Your task to perform on an android device: Open Google Chrome and open the bookmarks view Image 0: 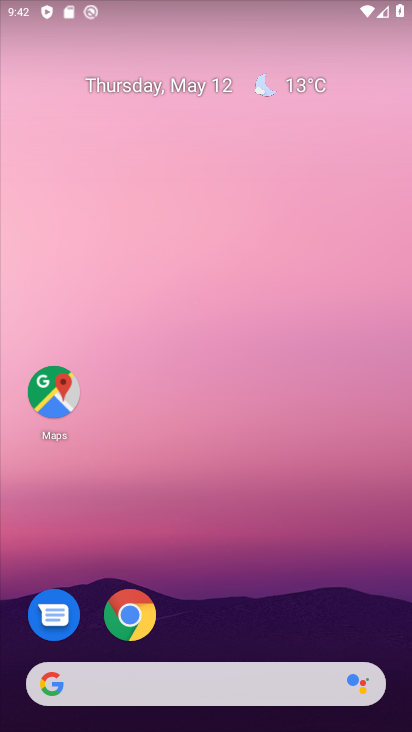
Step 0: drag from (246, 609) to (291, 131)
Your task to perform on an android device: Open Google Chrome and open the bookmarks view Image 1: 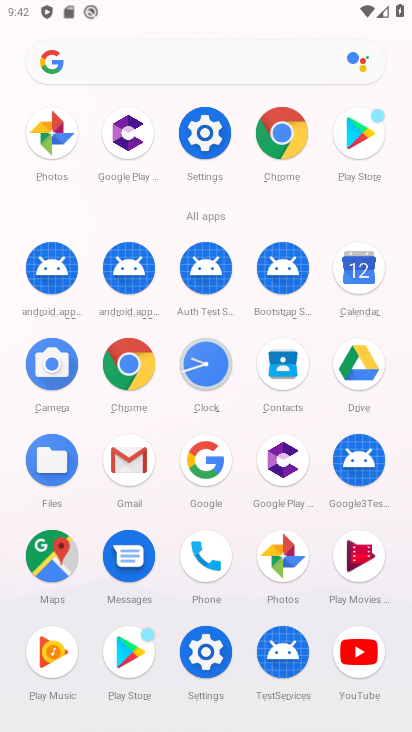
Step 1: click (291, 131)
Your task to perform on an android device: Open Google Chrome and open the bookmarks view Image 2: 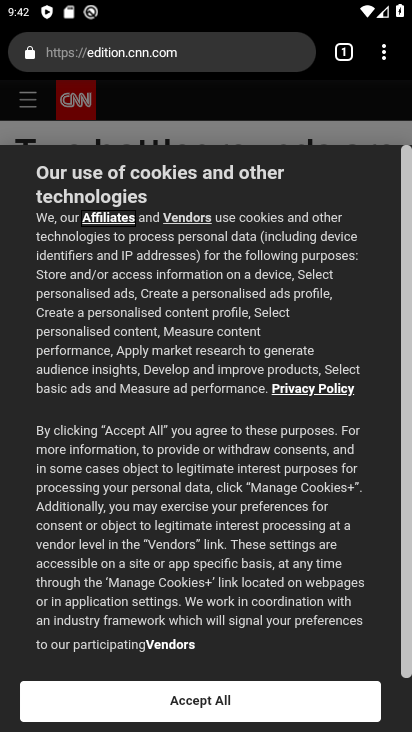
Step 2: drag from (387, 70) to (214, 198)
Your task to perform on an android device: Open Google Chrome and open the bookmarks view Image 3: 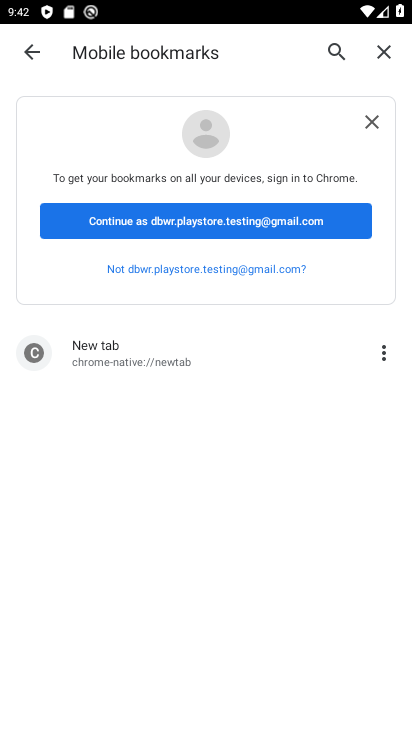
Step 3: click (232, 224)
Your task to perform on an android device: Open Google Chrome and open the bookmarks view Image 4: 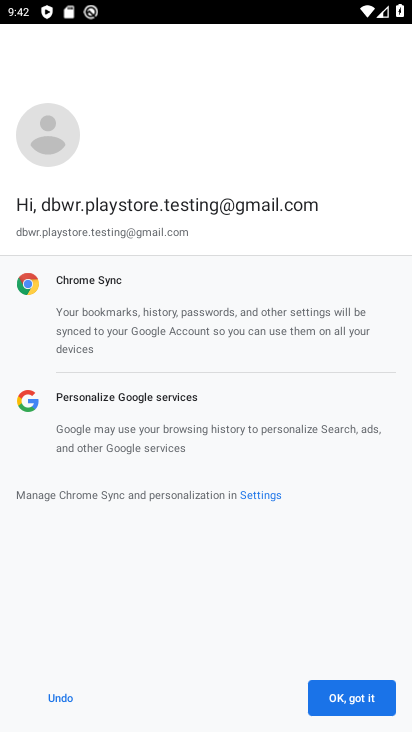
Step 4: click (347, 694)
Your task to perform on an android device: Open Google Chrome and open the bookmarks view Image 5: 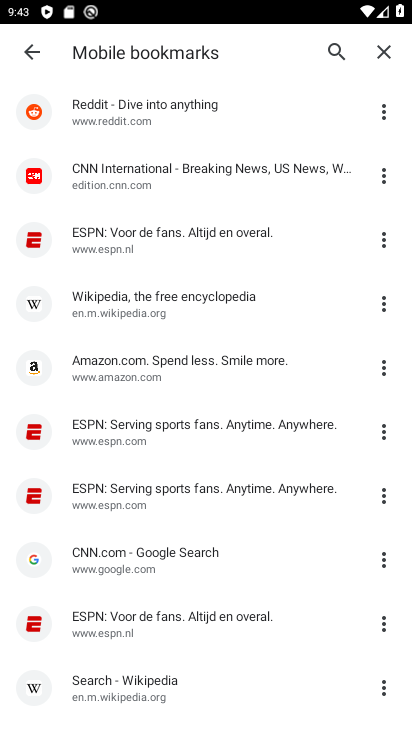
Step 5: task complete